Your task to perform on an android device: Open Youtube and go to the subscriptions tab Image 0: 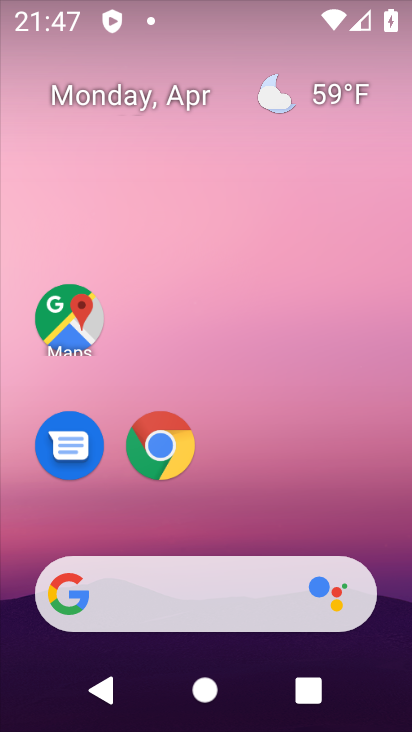
Step 0: drag from (312, 496) to (314, 58)
Your task to perform on an android device: Open Youtube and go to the subscriptions tab Image 1: 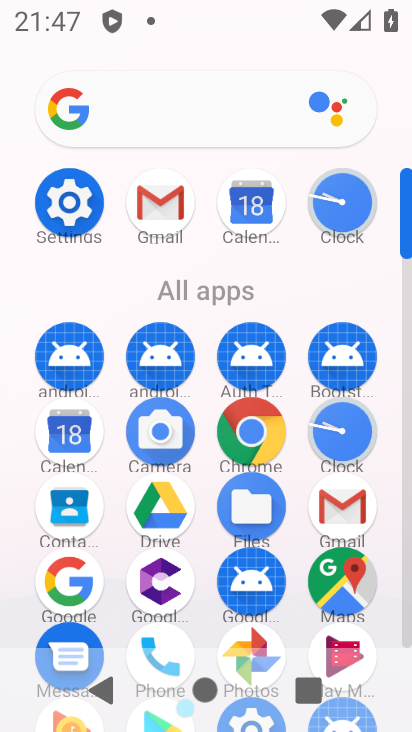
Step 1: drag from (287, 540) to (322, 163)
Your task to perform on an android device: Open Youtube and go to the subscriptions tab Image 2: 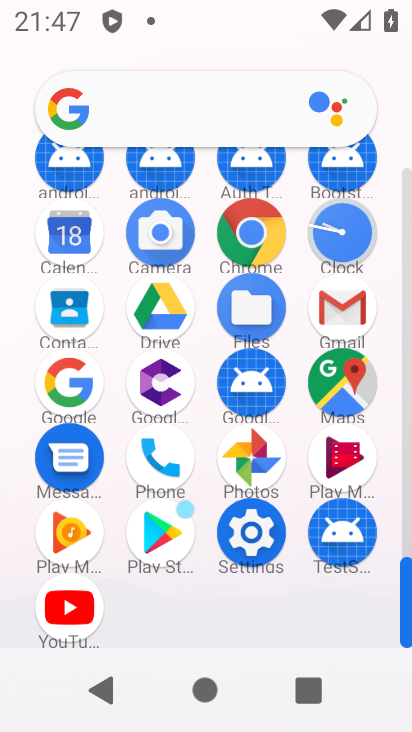
Step 2: click (85, 606)
Your task to perform on an android device: Open Youtube and go to the subscriptions tab Image 3: 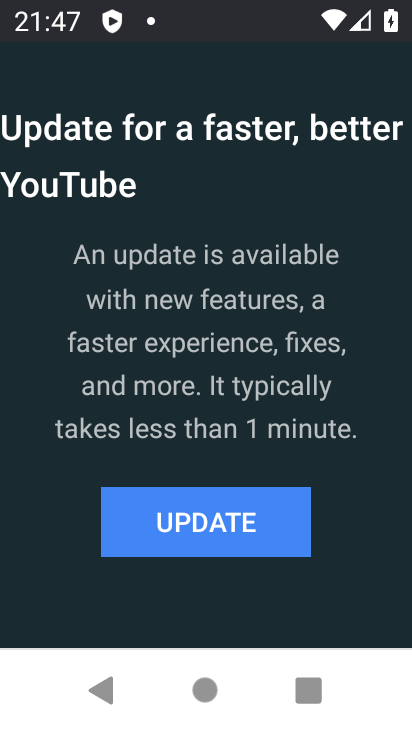
Step 3: click (207, 532)
Your task to perform on an android device: Open Youtube and go to the subscriptions tab Image 4: 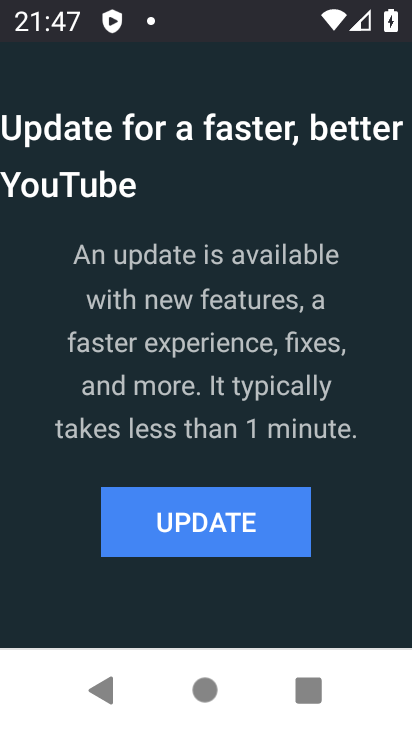
Step 4: click (207, 510)
Your task to perform on an android device: Open Youtube and go to the subscriptions tab Image 5: 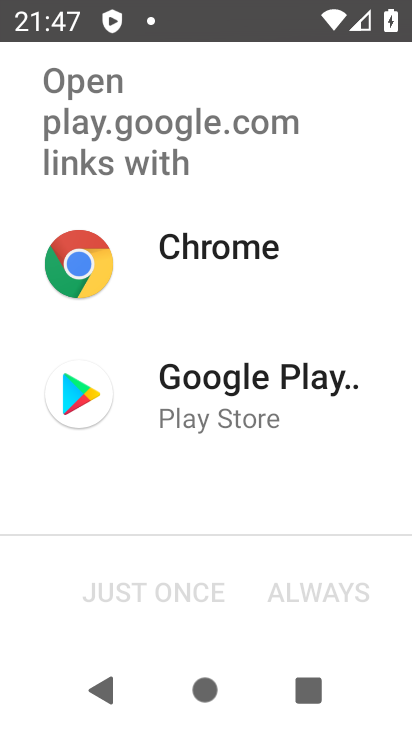
Step 5: click (219, 250)
Your task to perform on an android device: Open Youtube and go to the subscriptions tab Image 6: 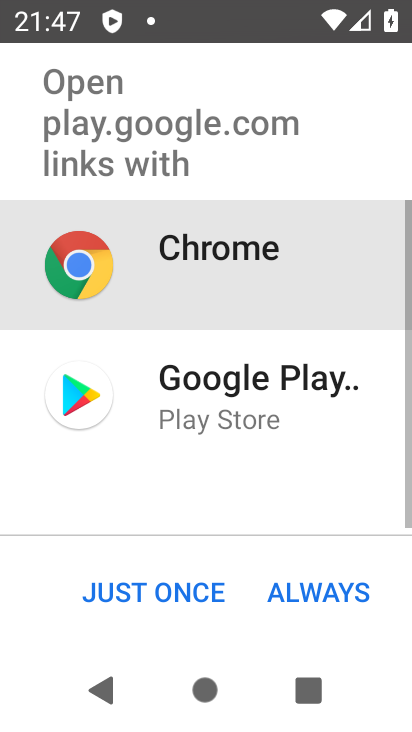
Step 6: click (219, 245)
Your task to perform on an android device: Open Youtube and go to the subscriptions tab Image 7: 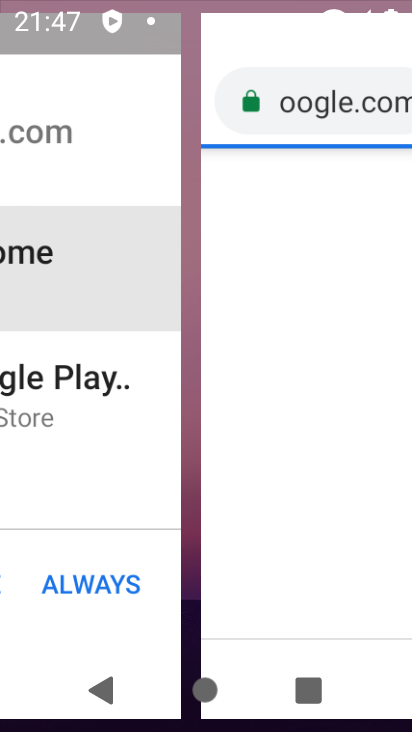
Step 7: click (175, 586)
Your task to perform on an android device: Open Youtube and go to the subscriptions tab Image 8: 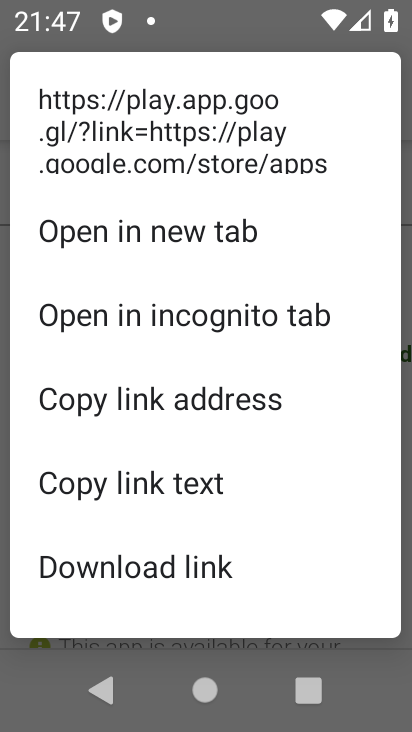
Step 8: click (235, 225)
Your task to perform on an android device: Open Youtube and go to the subscriptions tab Image 9: 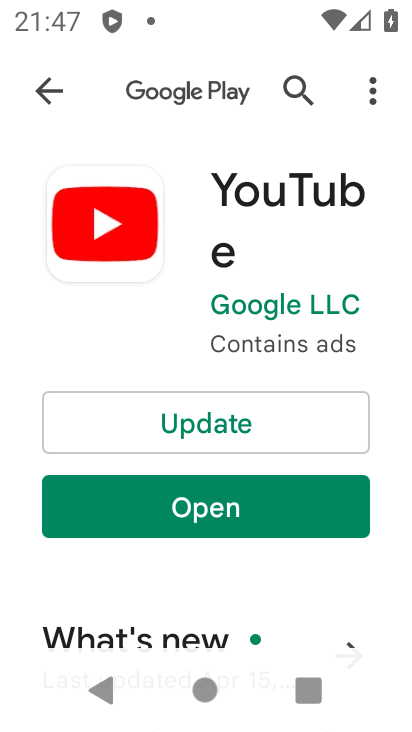
Step 9: click (201, 514)
Your task to perform on an android device: Open Youtube and go to the subscriptions tab Image 10: 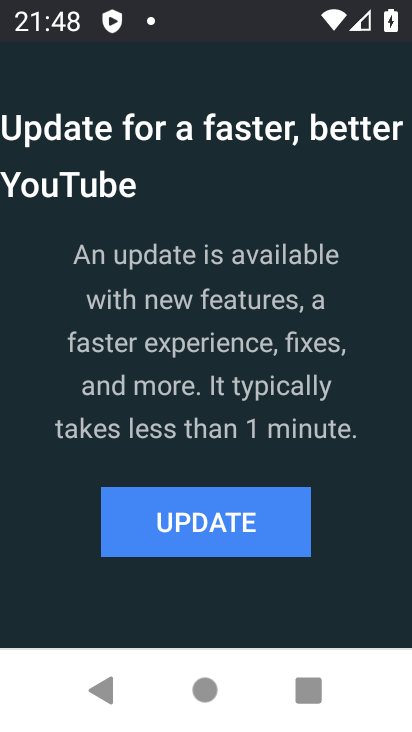
Step 10: task complete